Your task to perform on an android device: What's on my calendar tomorrow? Image 0: 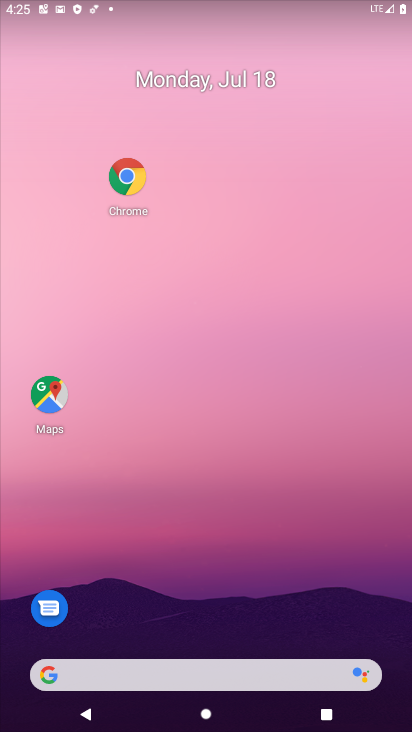
Step 0: press home button
Your task to perform on an android device: What's on my calendar tomorrow? Image 1: 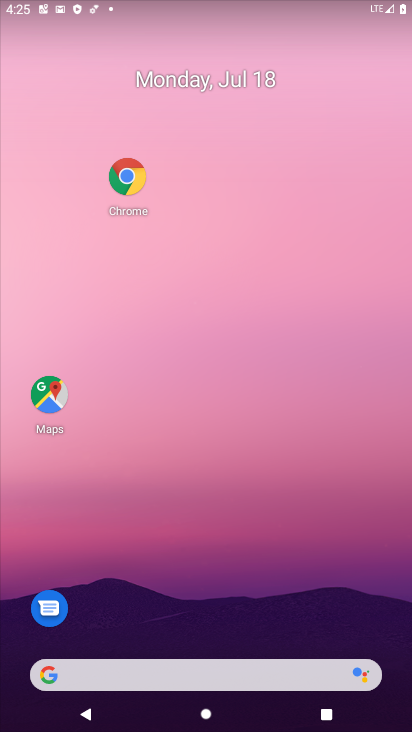
Step 1: drag from (225, 619) to (302, 125)
Your task to perform on an android device: What's on my calendar tomorrow? Image 2: 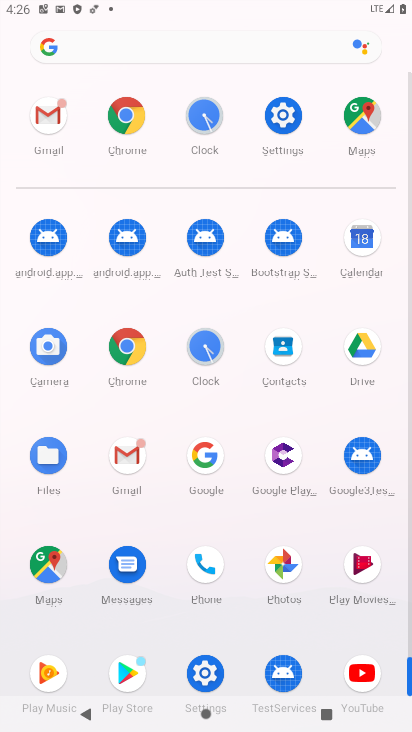
Step 2: click (361, 251)
Your task to perform on an android device: What's on my calendar tomorrow? Image 3: 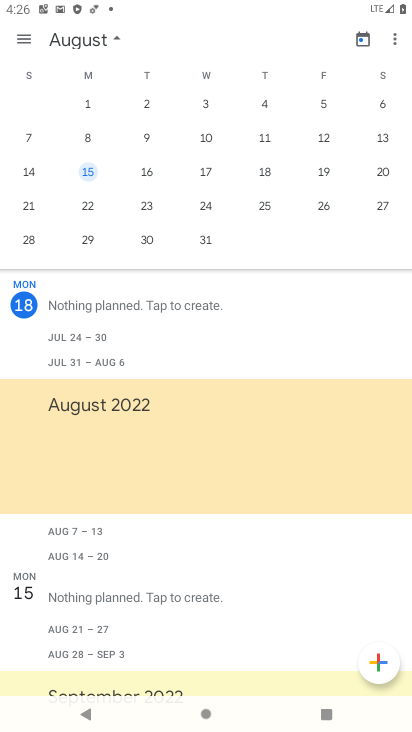
Step 3: drag from (46, 155) to (410, 180)
Your task to perform on an android device: What's on my calendar tomorrow? Image 4: 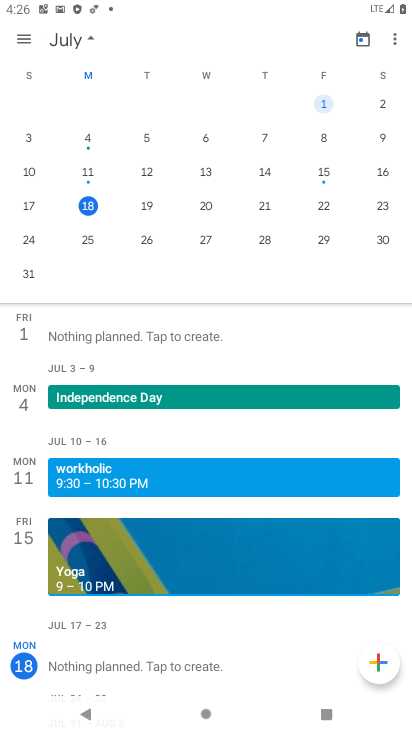
Step 4: click (146, 210)
Your task to perform on an android device: What's on my calendar tomorrow? Image 5: 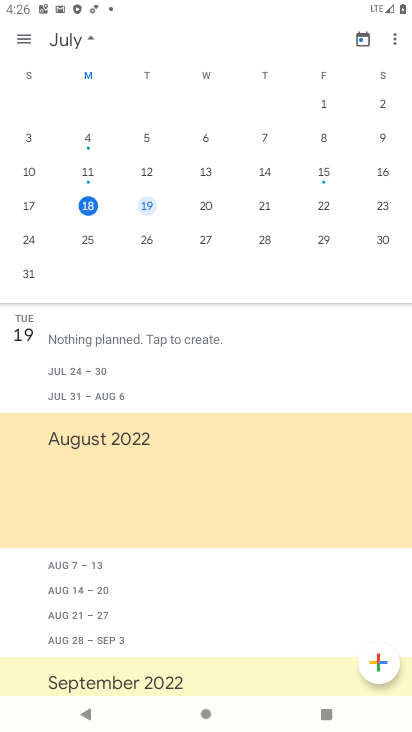
Step 5: task complete